Your task to perform on an android device: manage bookmarks in the chrome app Image 0: 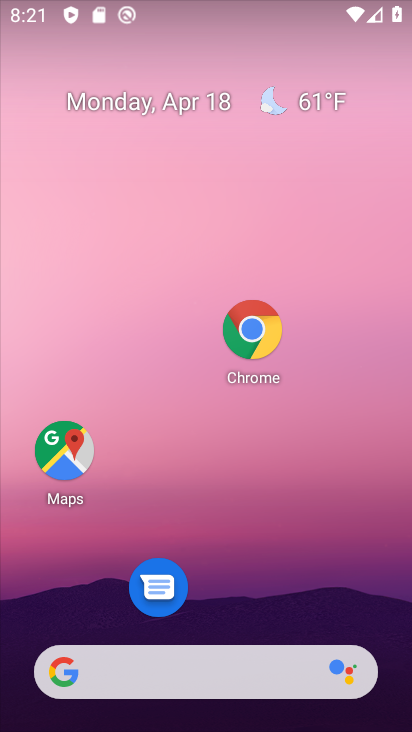
Step 0: drag from (266, 582) to (294, 258)
Your task to perform on an android device: manage bookmarks in the chrome app Image 1: 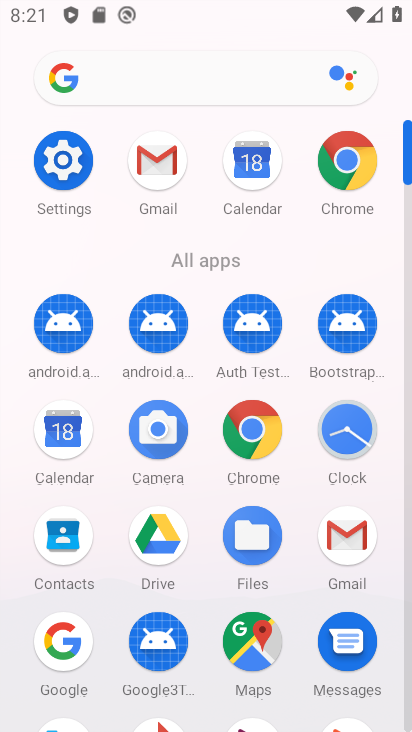
Step 1: click (234, 432)
Your task to perform on an android device: manage bookmarks in the chrome app Image 2: 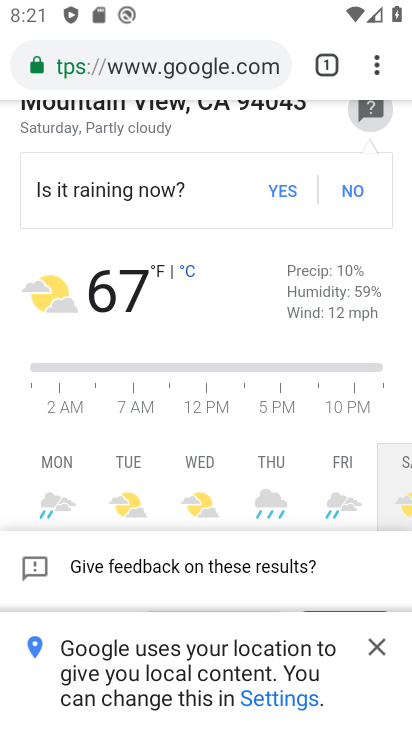
Step 2: click (366, 66)
Your task to perform on an android device: manage bookmarks in the chrome app Image 3: 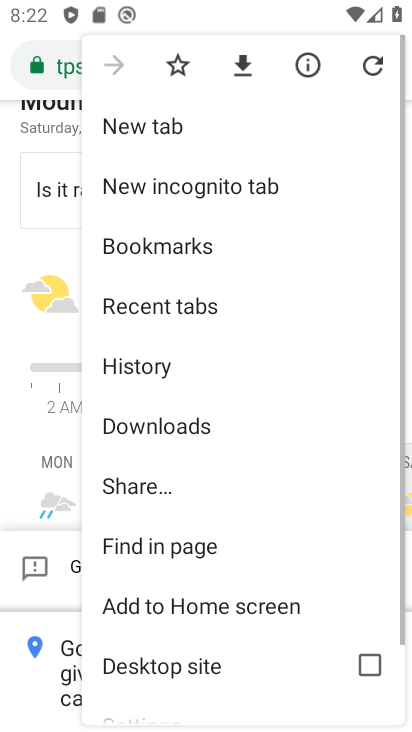
Step 3: click (179, 65)
Your task to perform on an android device: manage bookmarks in the chrome app Image 4: 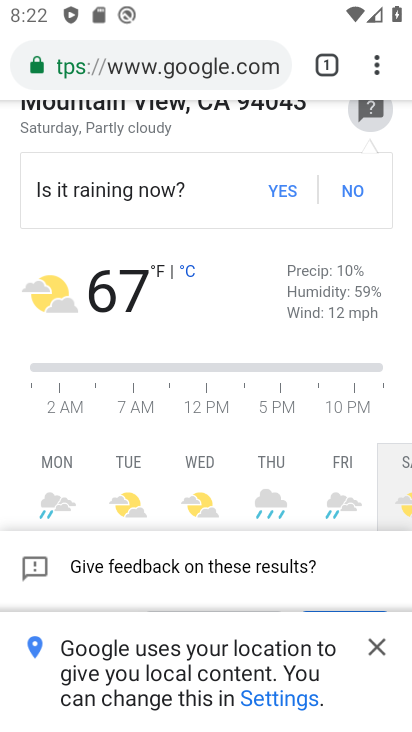
Step 4: click (365, 64)
Your task to perform on an android device: manage bookmarks in the chrome app Image 5: 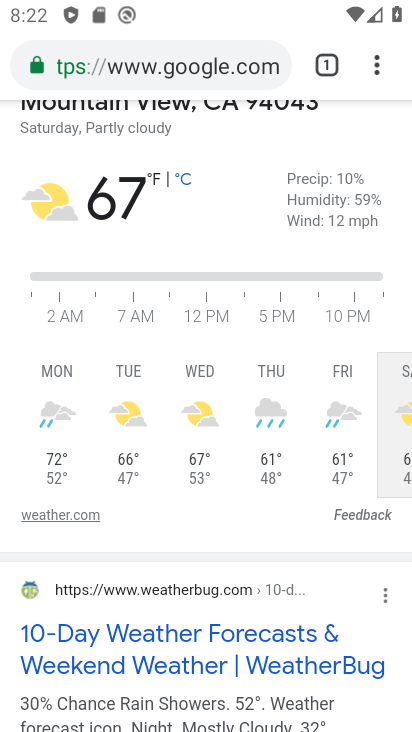
Step 5: click (366, 63)
Your task to perform on an android device: manage bookmarks in the chrome app Image 6: 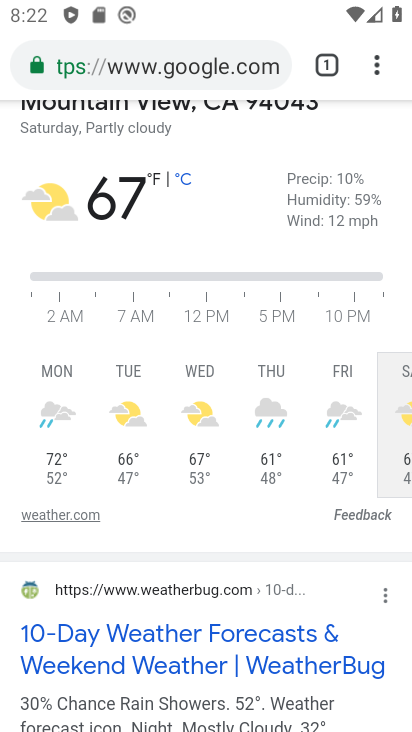
Step 6: click (359, 60)
Your task to perform on an android device: manage bookmarks in the chrome app Image 7: 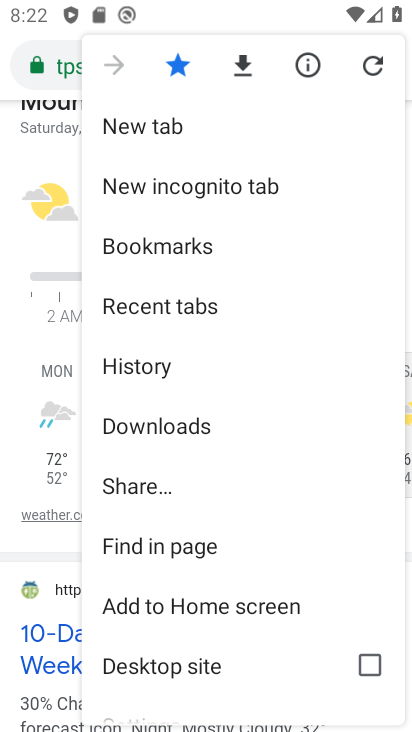
Step 7: click (198, 243)
Your task to perform on an android device: manage bookmarks in the chrome app Image 8: 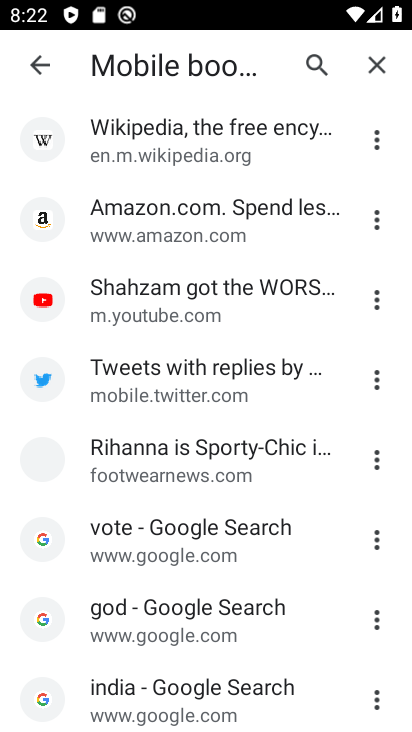
Step 8: click (163, 206)
Your task to perform on an android device: manage bookmarks in the chrome app Image 9: 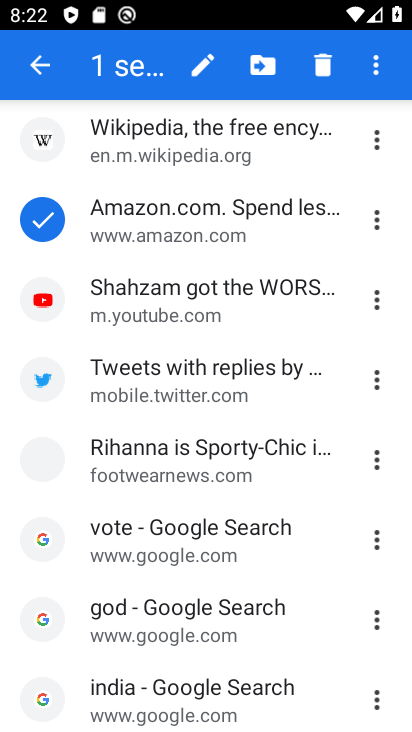
Step 9: click (254, 63)
Your task to perform on an android device: manage bookmarks in the chrome app Image 10: 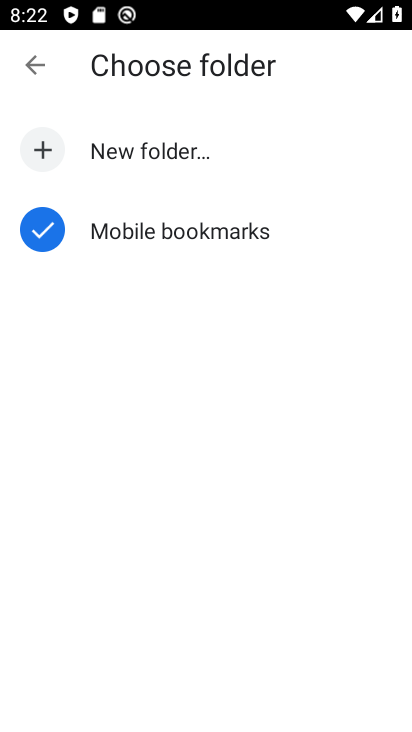
Step 10: click (157, 148)
Your task to perform on an android device: manage bookmarks in the chrome app Image 11: 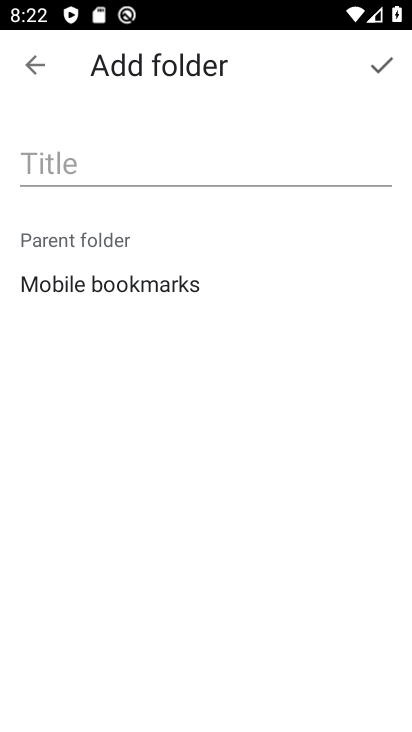
Step 11: click (241, 148)
Your task to perform on an android device: manage bookmarks in the chrome app Image 12: 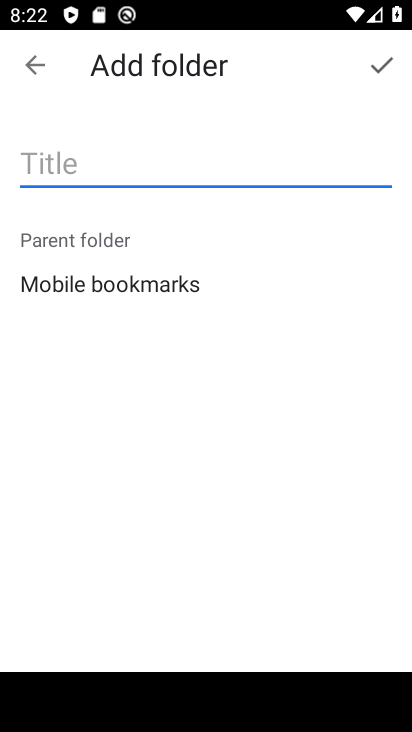
Step 12: type "lklkkkl"
Your task to perform on an android device: manage bookmarks in the chrome app Image 13: 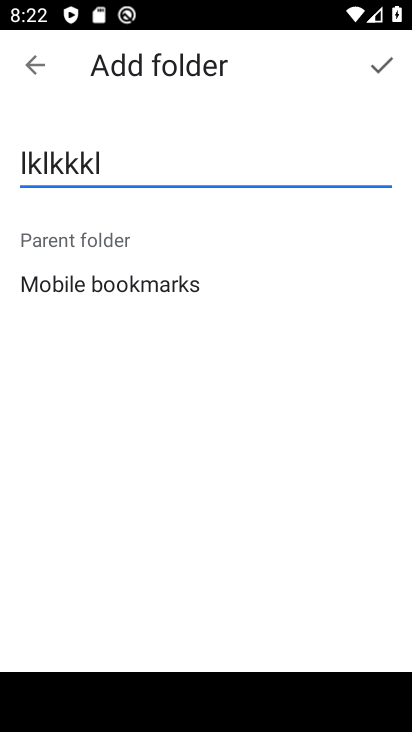
Step 13: click (368, 68)
Your task to perform on an android device: manage bookmarks in the chrome app Image 14: 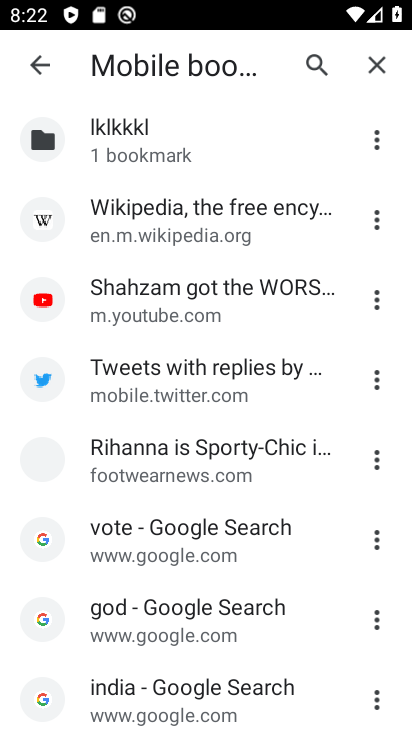
Step 14: task complete